Your task to perform on an android device: Open location settings Image 0: 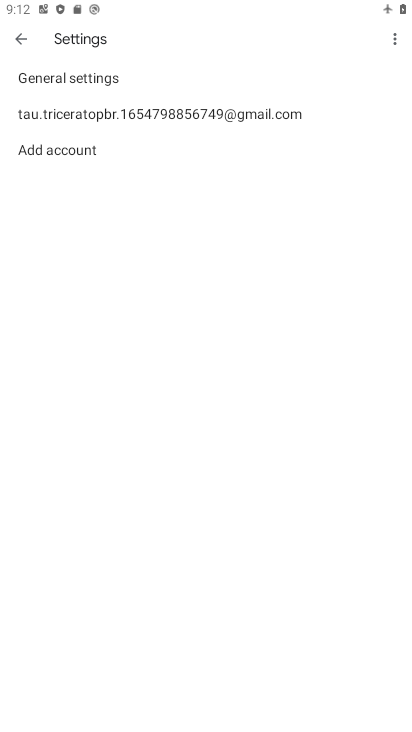
Step 0: press home button
Your task to perform on an android device: Open location settings Image 1: 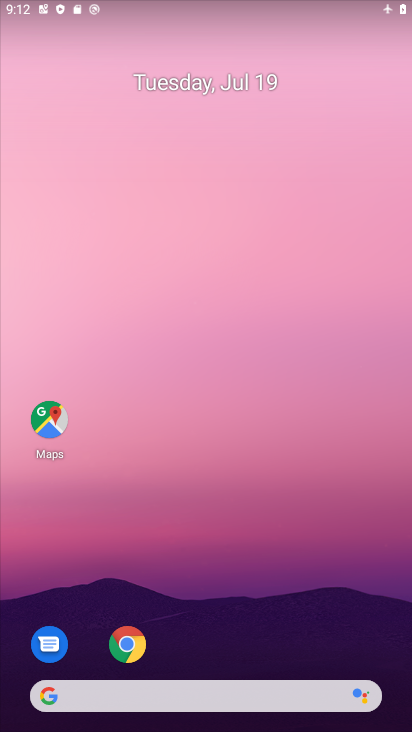
Step 1: drag from (207, 672) to (244, 2)
Your task to perform on an android device: Open location settings Image 2: 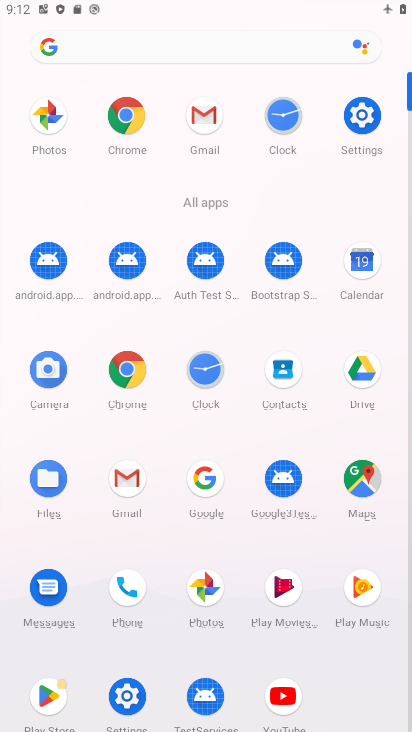
Step 2: click (349, 119)
Your task to perform on an android device: Open location settings Image 3: 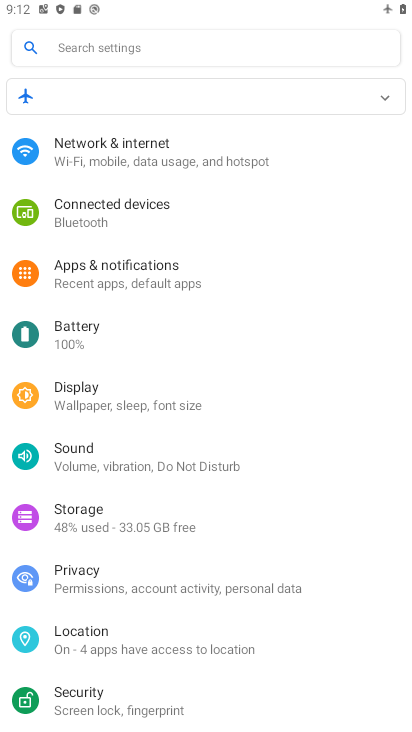
Step 3: click (59, 641)
Your task to perform on an android device: Open location settings Image 4: 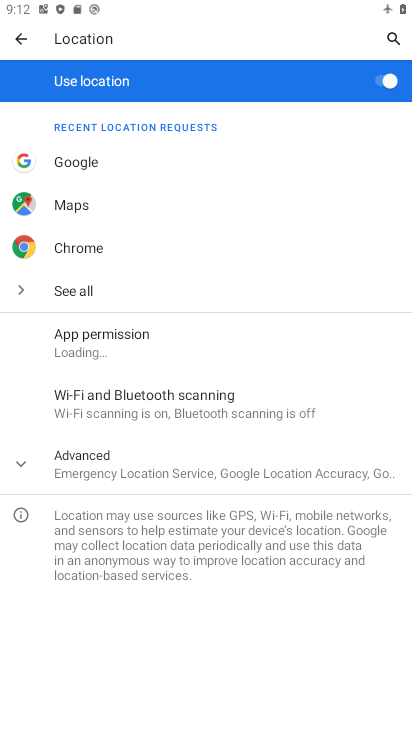
Step 4: click (63, 485)
Your task to perform on an android device: Open location settings Image 5: 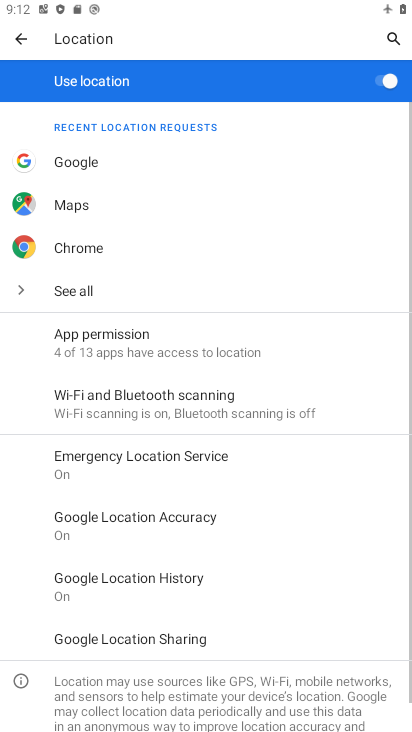
Step 5: task complete